Your task to perform on an android device: Go to calendar. Show me events next week Image 0: 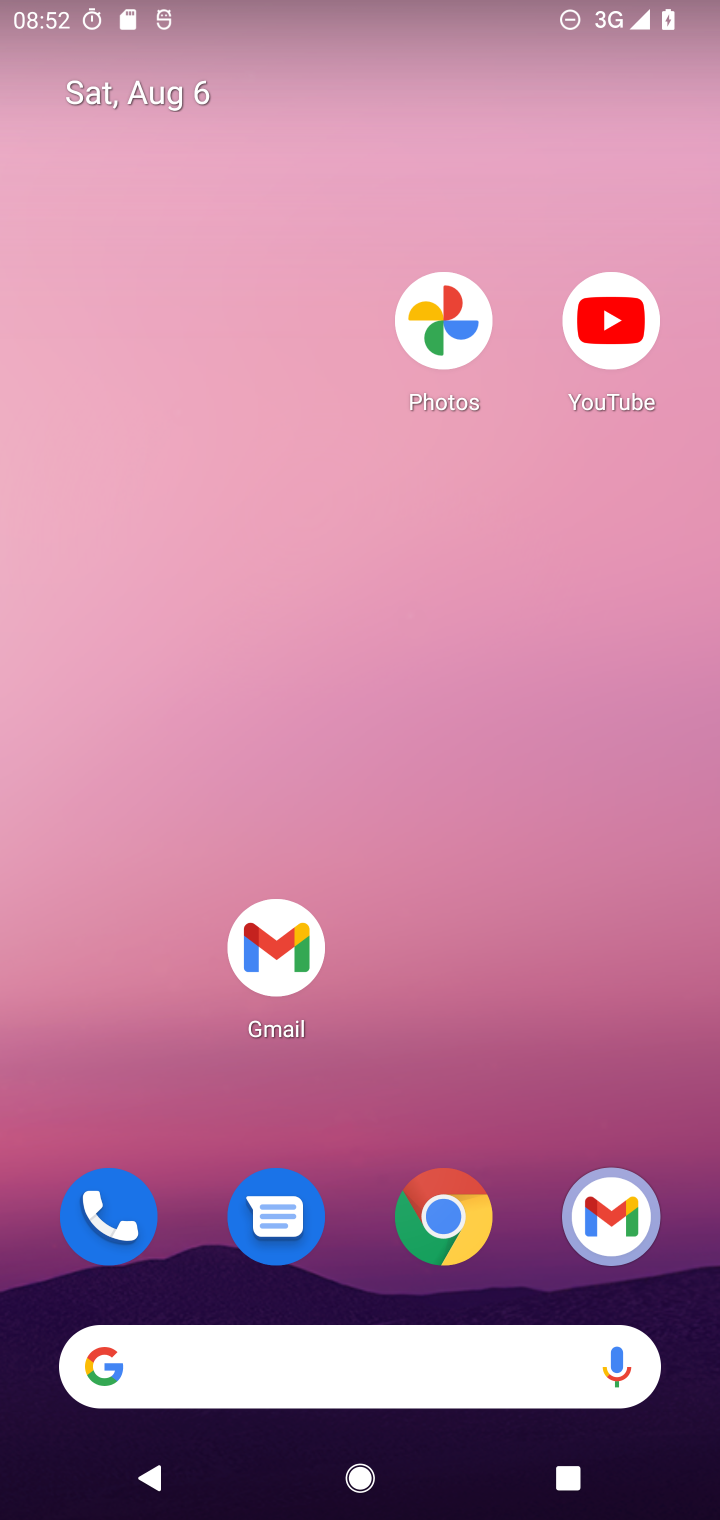
Step 0: drag from (578, 1093) to (576, 30)
Your task to perform on an android device: Go to calendar. Show me events next week Image 1: 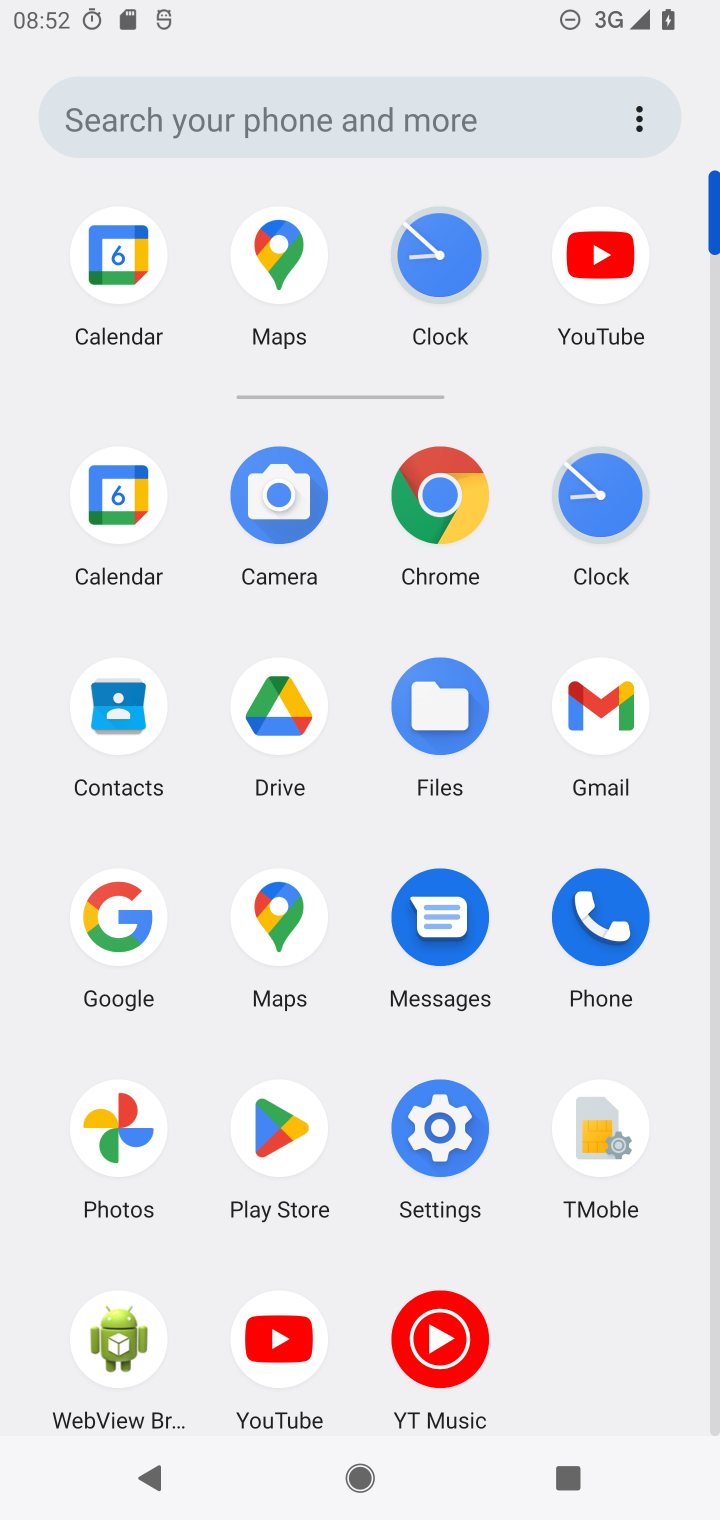
Step 1: click (97, 504)
Your task to perform on an android device: Go to calendar. Show me events next week Image 2: 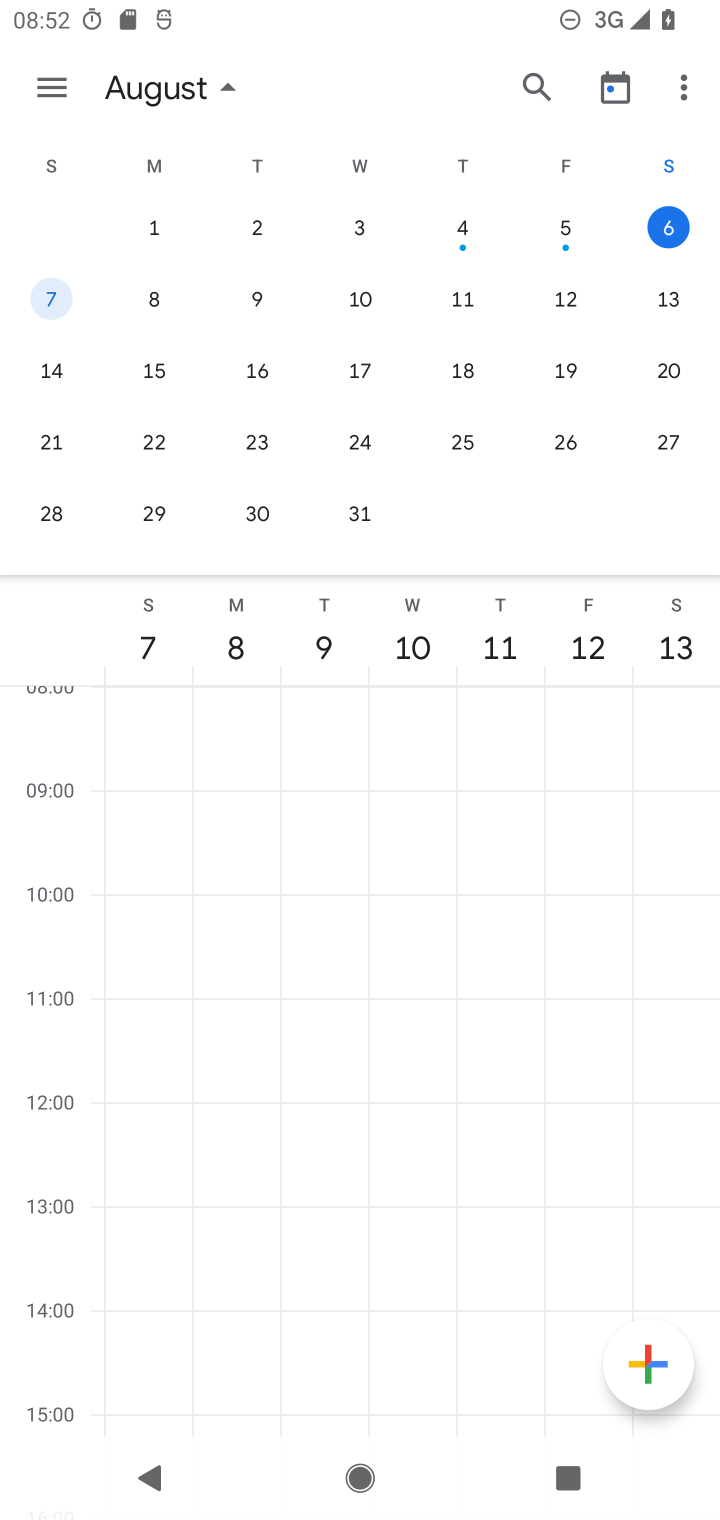
Step 2: click (659, 283)
Your task to perform on an android device: Go to calendar. Show me events next week Image 3: 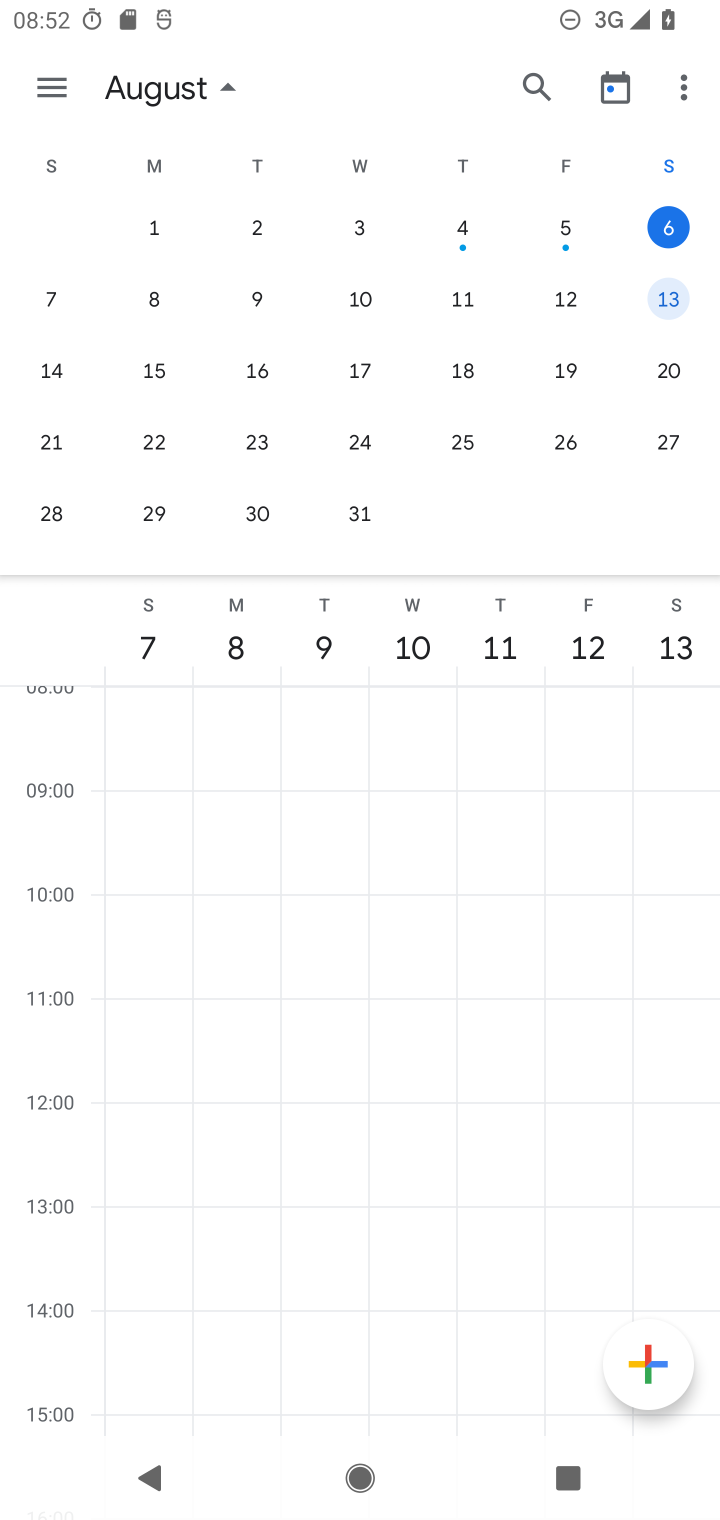
Step 3: click (41, 88)
Your task to perform on an android device: Go to calendar. Show me events next week Image 4: 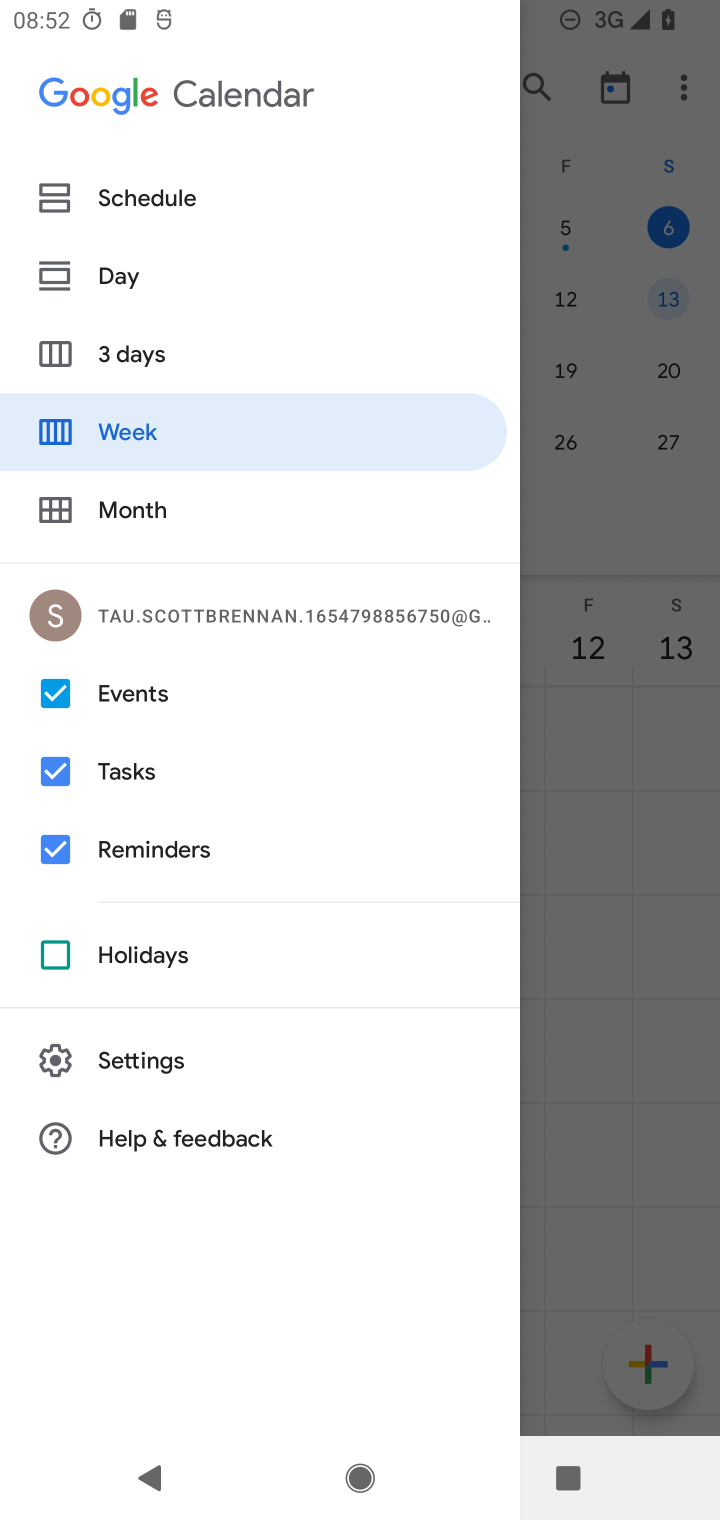
Step 4: click (140, 336)
Your task to perform on an android device: Go to calendar. Show me events next week Image 5: 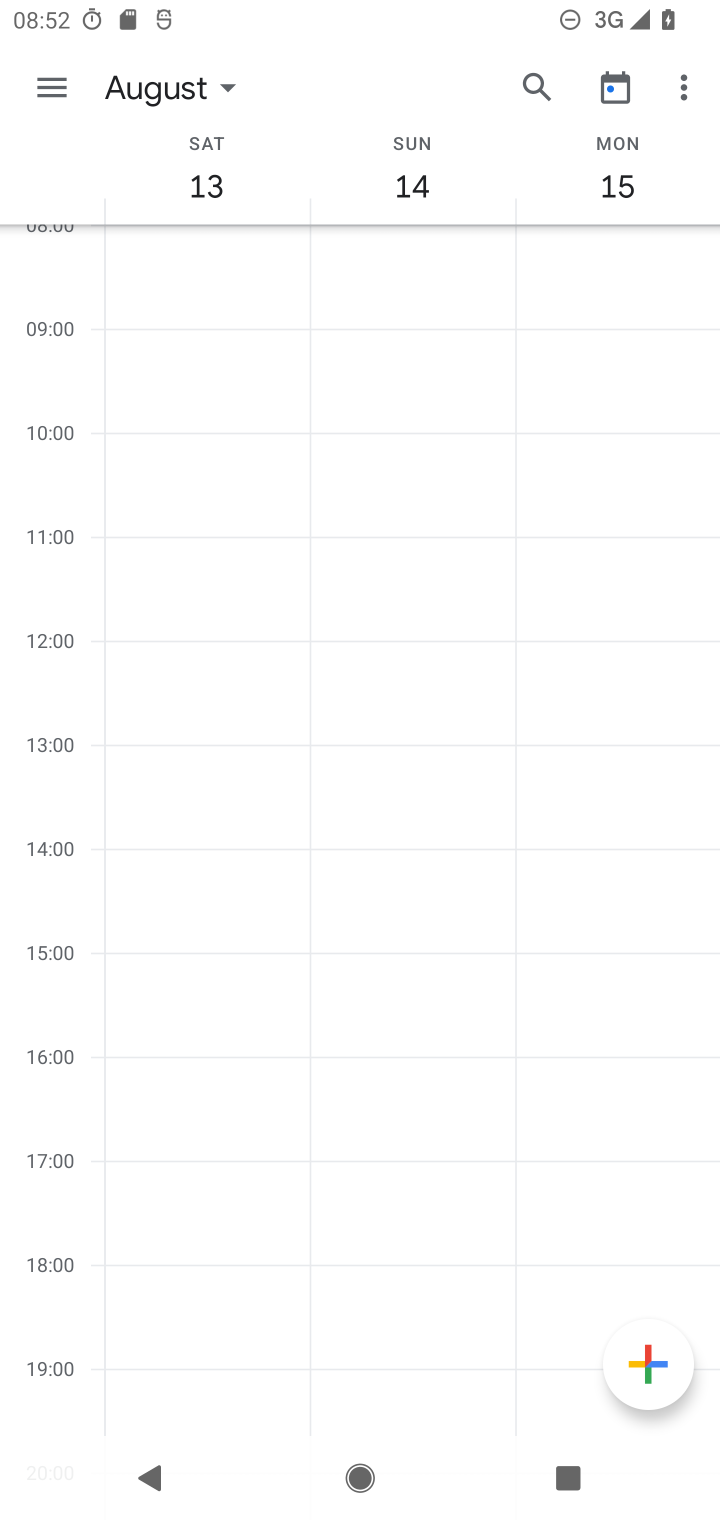
Step 5: task complete